Your task to perform on an android device: What's on my calendar today? Image 0: 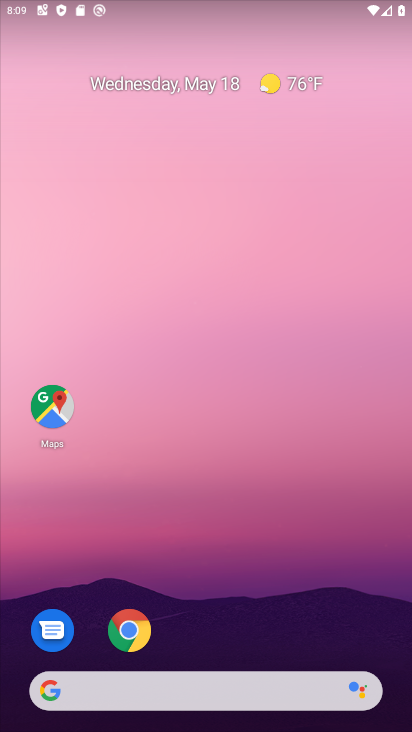
Step 0: drag from (263, 728) to (159, 0)
Your task to perform on an android device: What's on my calendar today? Image 1: 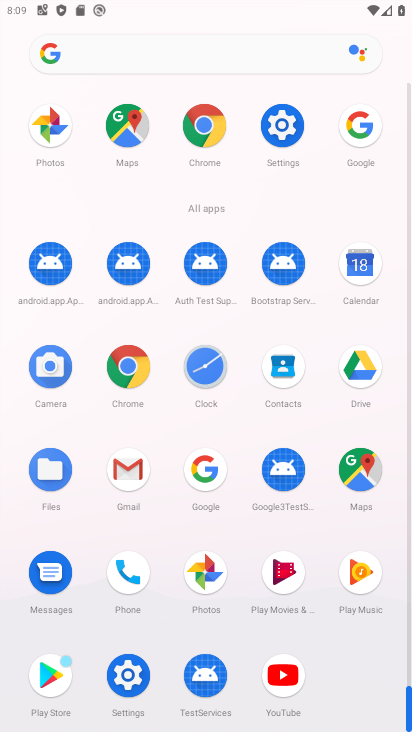
Step 1: click (358, 265)
Your task to perform on an android device: What's on my calendar today? Image 2: 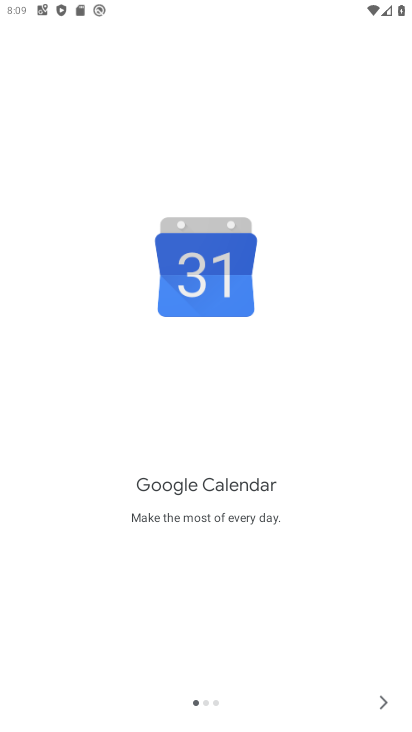
Step 2: click (387, 702)
Your task to perform on an android device: What's on my calendar today? Image 3: 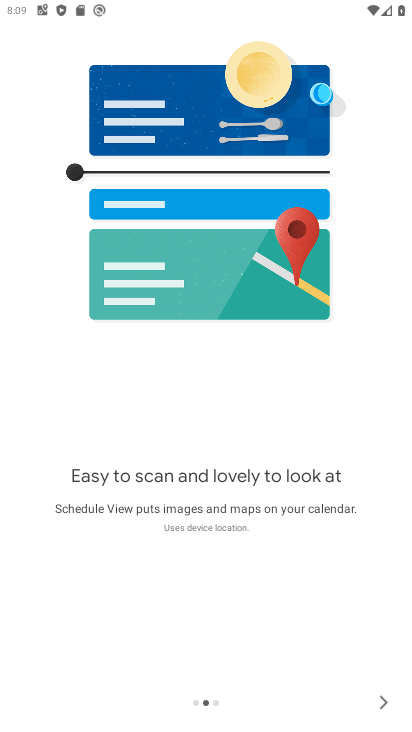
Step 3: click (387, 701)
Your task to perform on an android device: What's on my calendar today? Image 4: 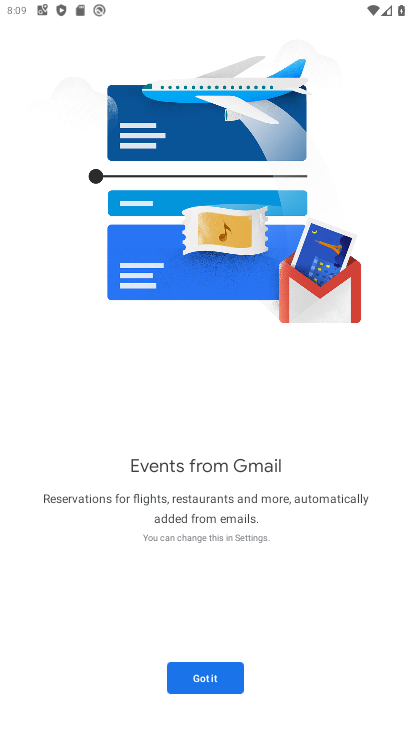
Step 4: click (197, 674)
Your task to perform on an android device: What's on my calendar today? Image 5: 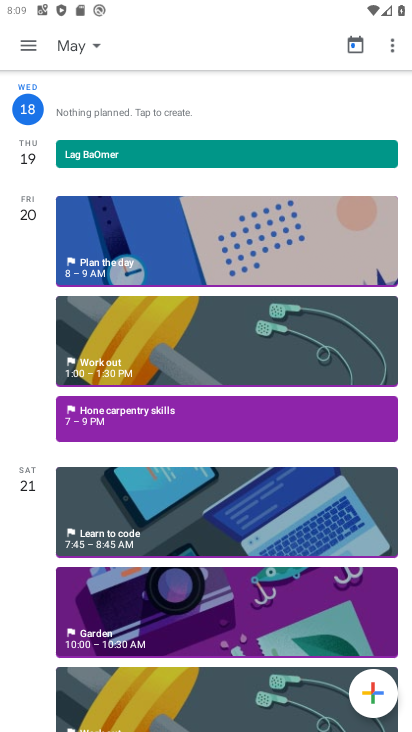
Step 5: task complete